Your task to perform on an android device: Open calendar and show me the second week of next month Image 0: 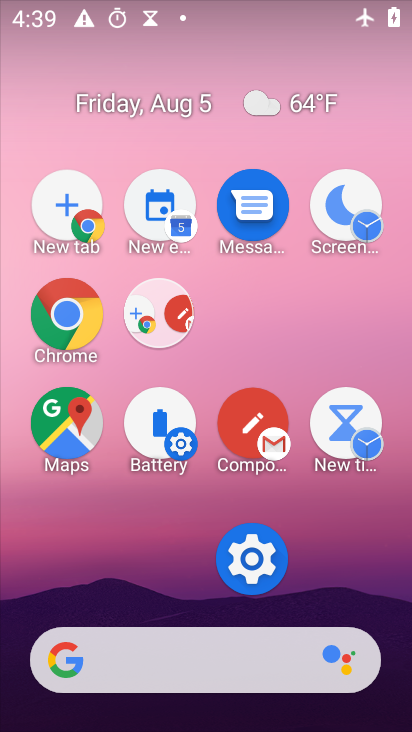
Step 0: drag from (309, 618) to (192, 227)
Your task to perform on an android device: Open calendar and show me the second week of next month Image 1: 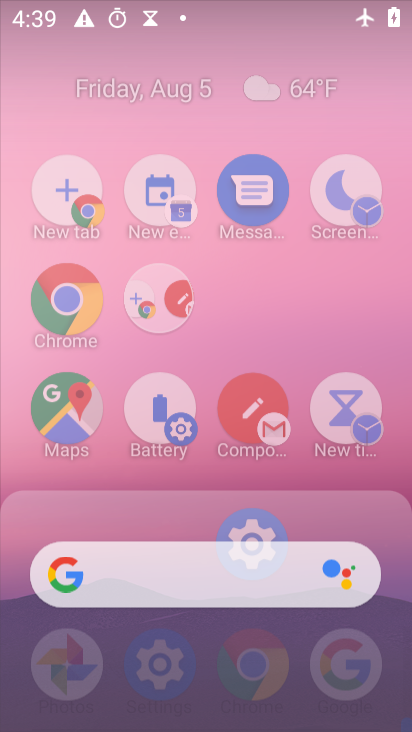
Step 1: drag from (347, 587) to (259, 259)
Your task to perform on an android device: Open calendar and show me the second week of next month Image 2: 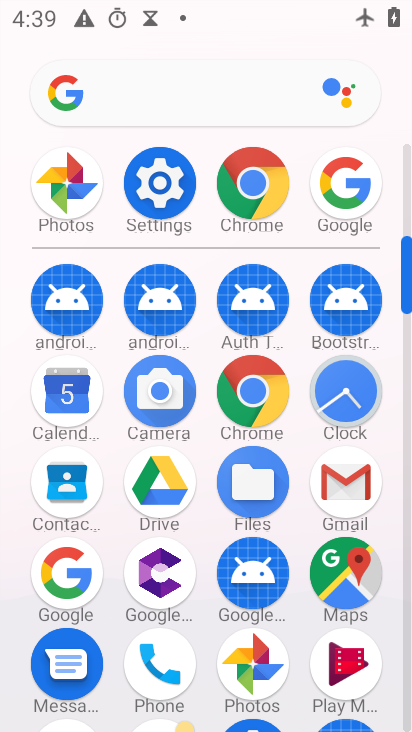
Step 2: drag from (301, 508) to (237, 186)
Your task to perform on an android device: Open calendar and show me the second week of next month Image 3: 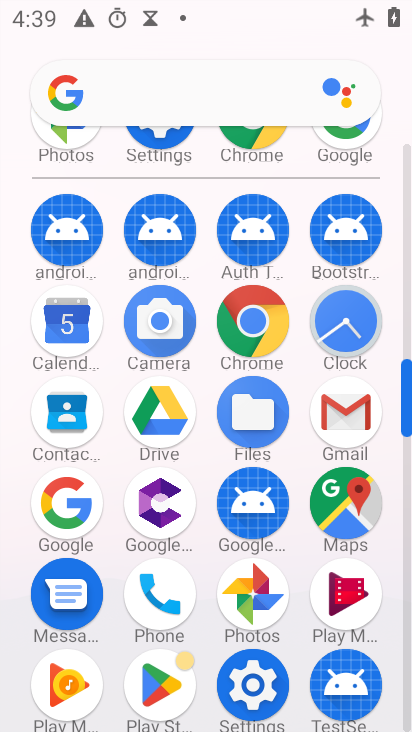
Step 3: drag from (283, 329) to (260, 514)
Your task to perform on an android device: Open calendar and show me the second week of next month Image 4: 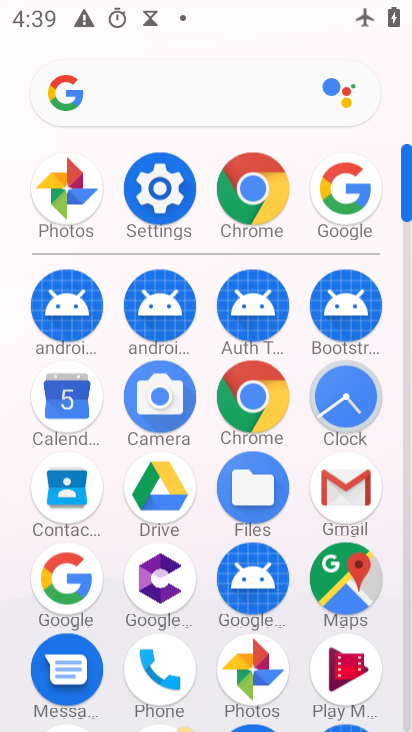
Step 4: click (207, 630)
Your task to perform on an android device: Open calendar and show me the second week of next month Image 5: 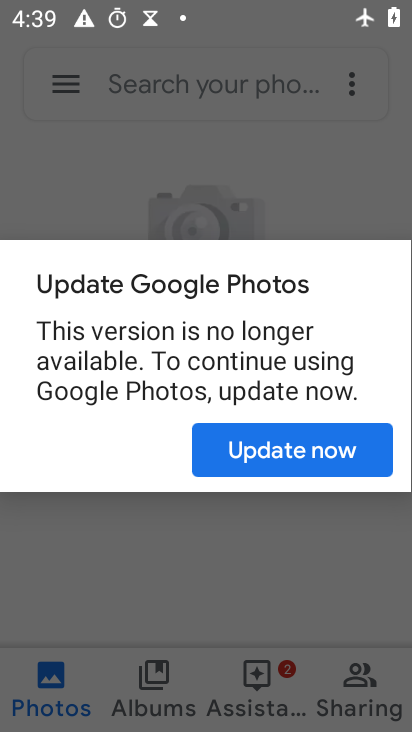
Step 5: press back button
Your task to perform on an android device: Open calendar and show me the second week of next month Image 6: 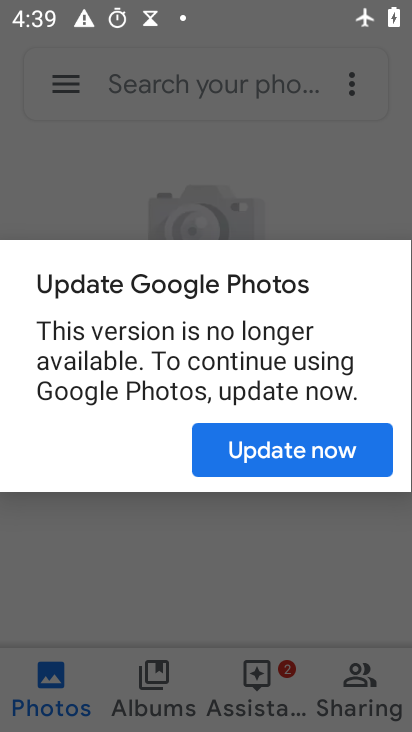
Step 6: press back button
Your task to perform on an android device: Open calendar and show me the second week of next month Image 7: 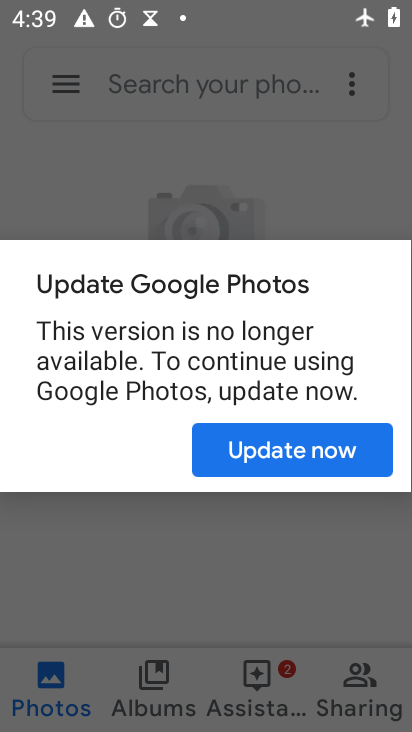
Step 7: press back button
Your task to perform on an android device: Open calendar and show me the second week of next month Image 8: 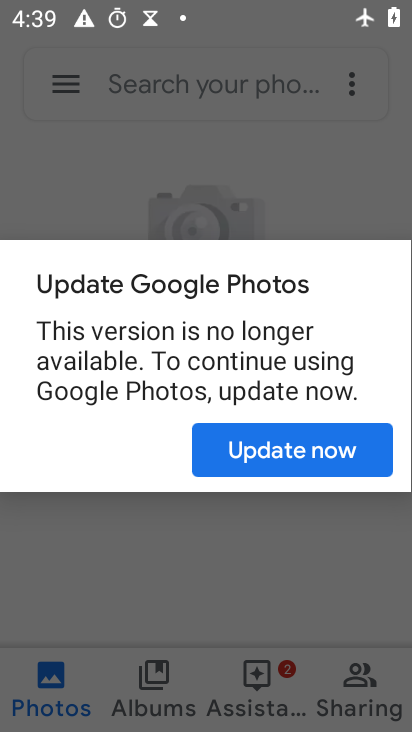
Step 8: press back button
Your task to perform on an android device: Open calendar and show me the second week of next month Image 9: 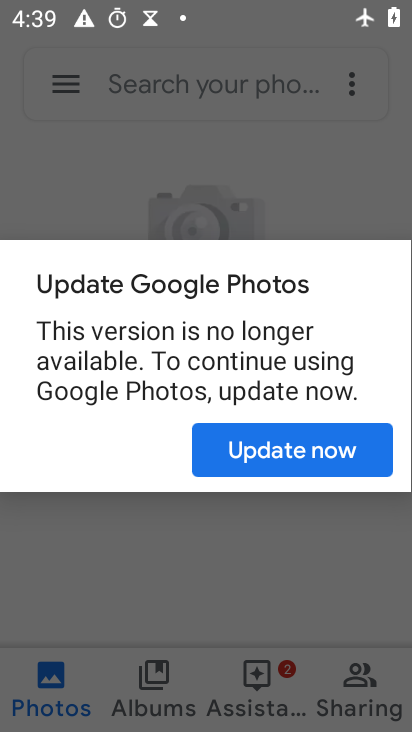
Step 9: press home button
Your task to perform on an android device: Open calendar and show me the second week of next month Image 10: 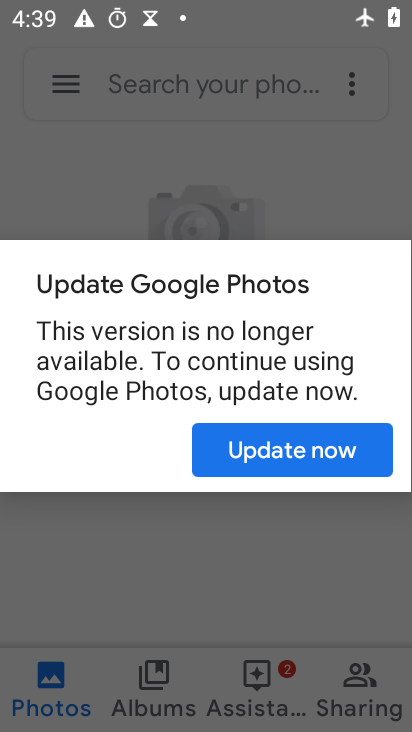
Step 10: press back button
Your task to perform on an android device: Open calendar and show me the second week of next month Image 11: 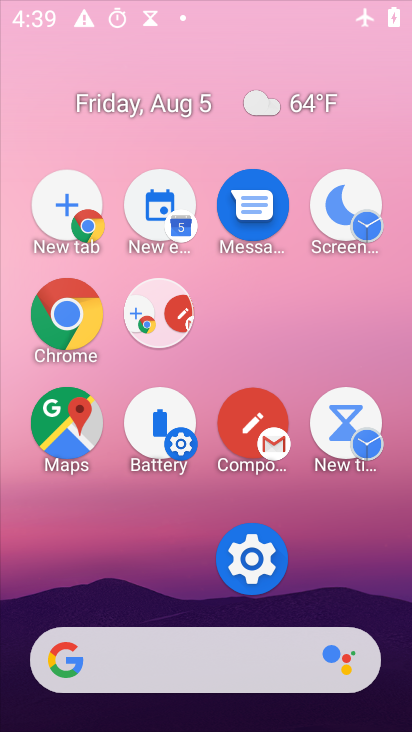
Step 11: press back button
Your task to perform on an android device: Open calendar and show me the second week of next month Image 12: 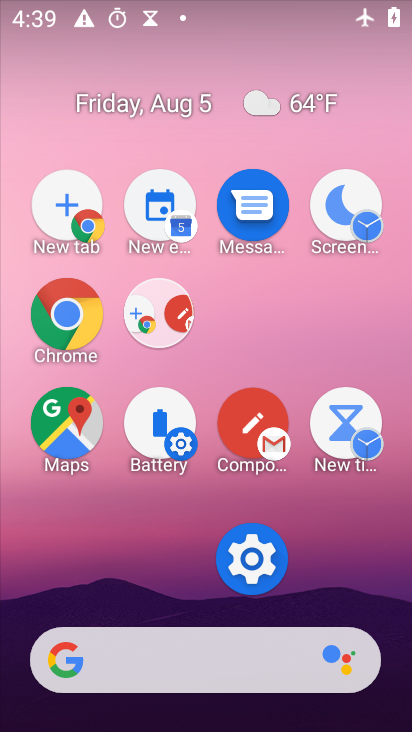
Step 12: press back button
Your task to perform on an android device: Open calendar and show me the second week of next month Image 13: 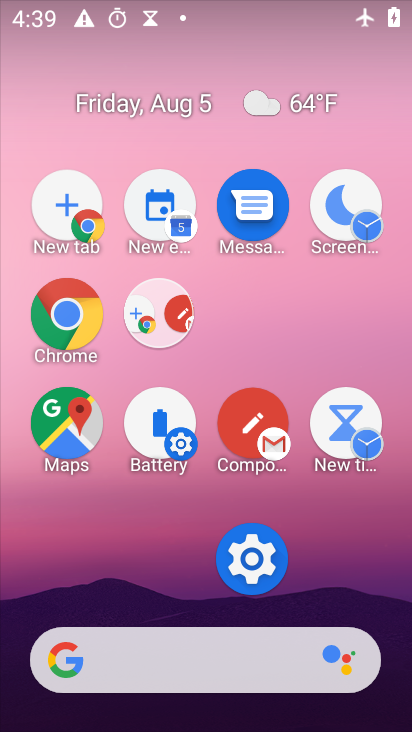
Step 13: drag from (224, 564) to (189, 123)
Your task to perform on an android device: Open calendar and show me the second week of next month Image 14: 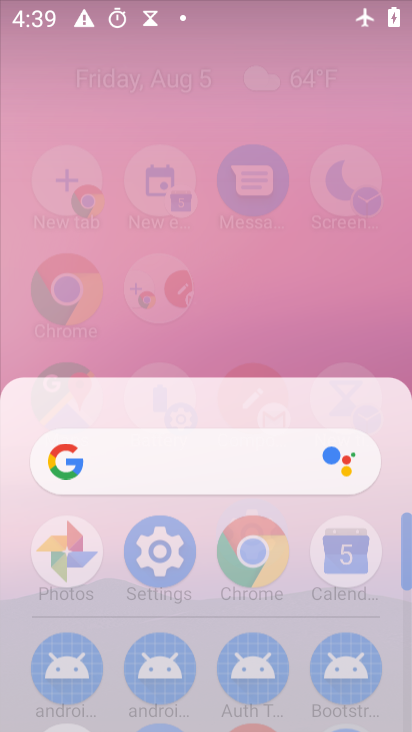
Step 14: drag from (229, 444) to (235, 128)
Your task to perform on an android device: Open calendar and show me the second week of next month Image 15: 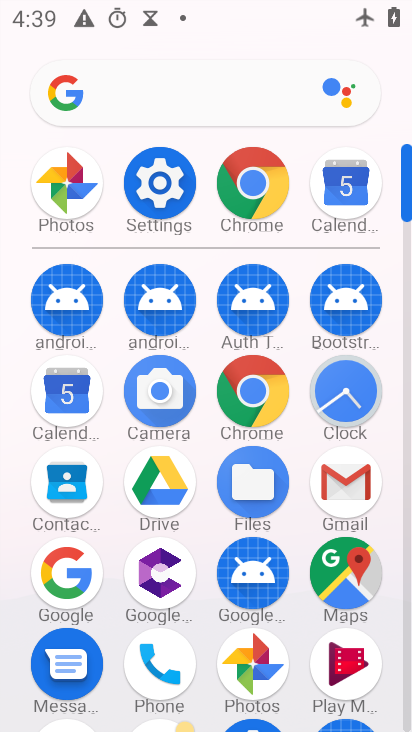
Step 15: click (347, 184)
Your task to perform on an android device: Open calendar and show me the second week of next month Image 16: 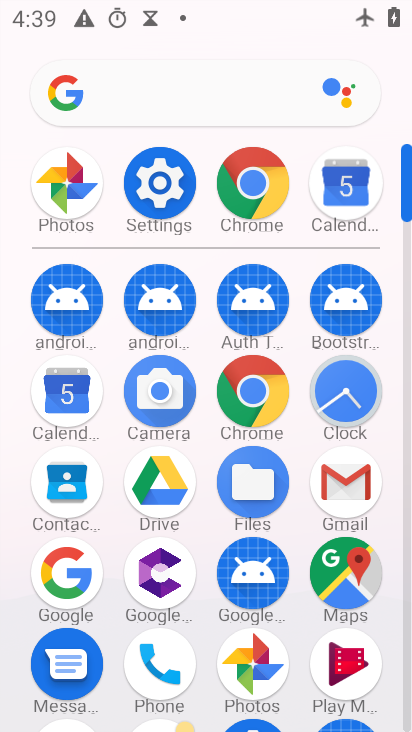
Step 16: click (347, 184)
Your task to perform on an android device: Open calendar and show me the second week of next month Image 17: 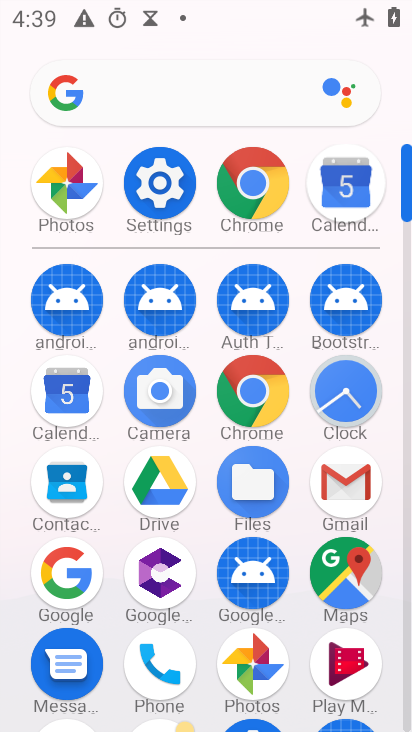
Step 17: click (347, 184)
Your task to perform on an android device: Open calendar and show me the second week of next month Image 18: 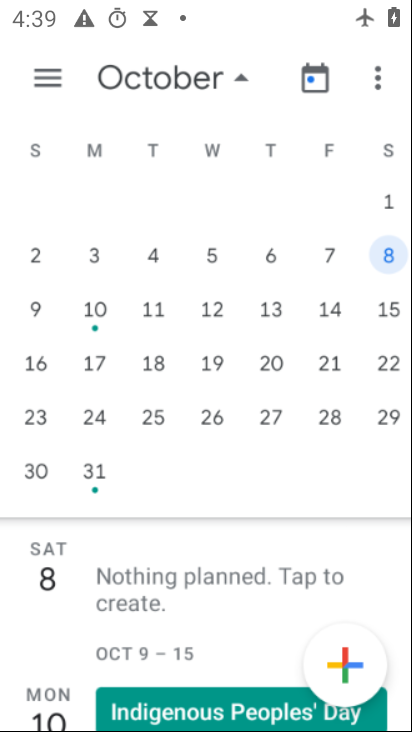
Step 18: click (352, 180)
Your task to perform on an android device: Open calendar and show me the second week of next month Image 19: 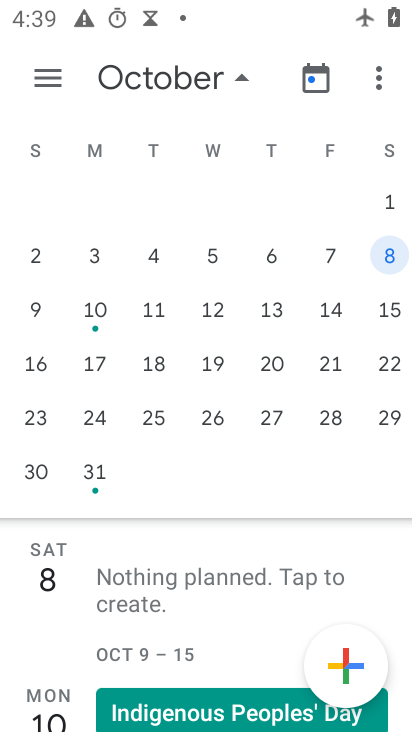
Step 19: drag from (365, 300) to (9, 310)
Your task to perform on an android device: Open calendar and show me the second week of next month Image 20: 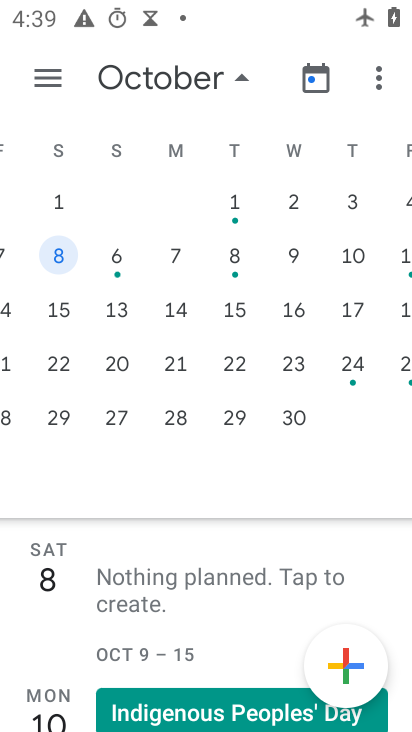
Step 20: drag from (90, 361) to (408, 379)
Your task to perform on an android device: Open calendar and show me the second week of next month Image 21: 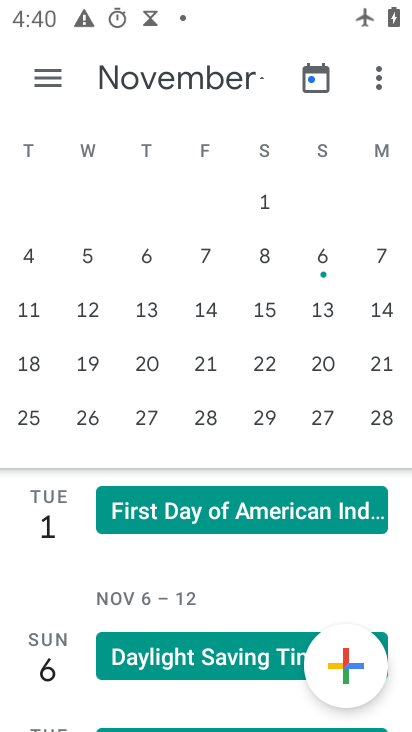
Step 21: drag from (111, 328) to (377, 331)
Your task to perform on an android device: Open calendar and show me the second week of next month Image 22: 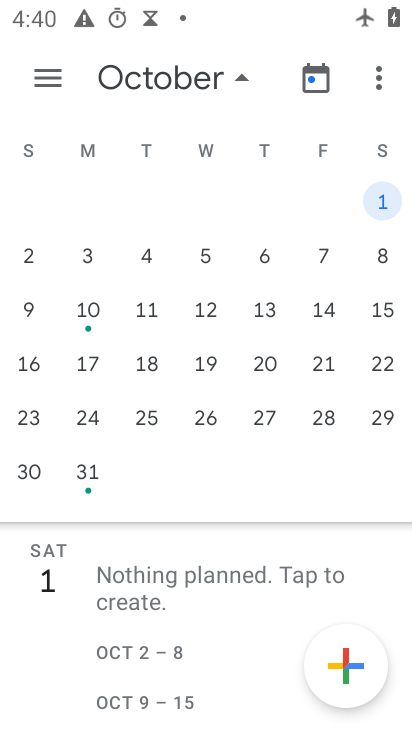
Step 22: drag from (72, 270) to (409, 287)
Your task to perform on an android device: Open calendar and show me the second week of next month Image 23: 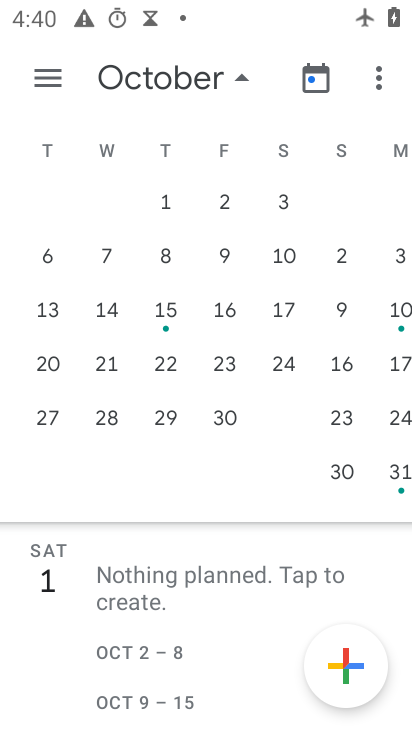
Step 23: drag from (116, 295) to (350, 337)
Your task to perform on an android device: Open calendar and show me the second week of next month Image 24: 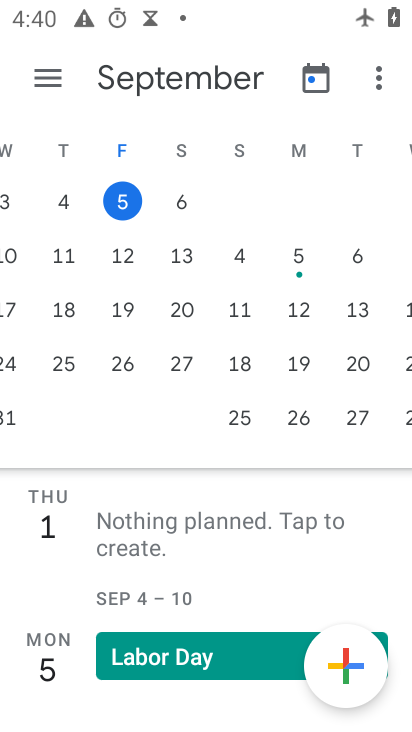
Step 24: drag from (104, 332) to (391, 365)
Your task to perform on an android device: Open calendar and show me the second week of next month Image 25: 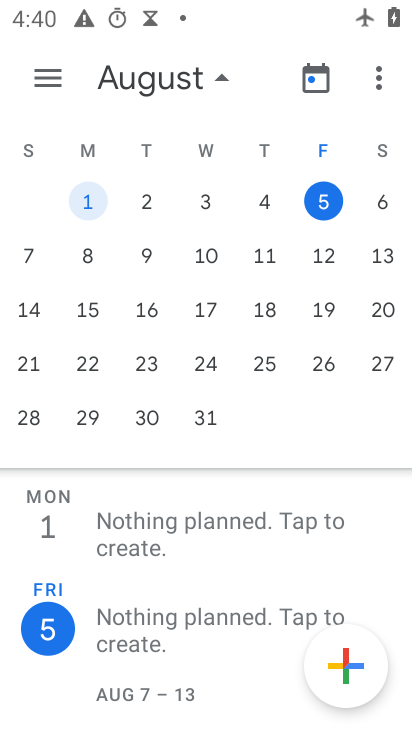
Step 25: drag from (329, 300) to (13, 333)
Your task to perform on an android device: Open calendar and show me the second week of next month Image 26: 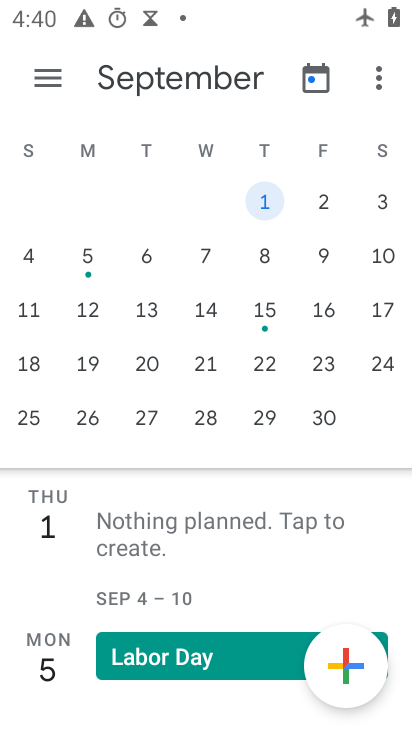
Step 26: drag from (365, 293) to (55, 353)
Your task to perform on an android device: Open calendar and show me the second week of next month Image 27: 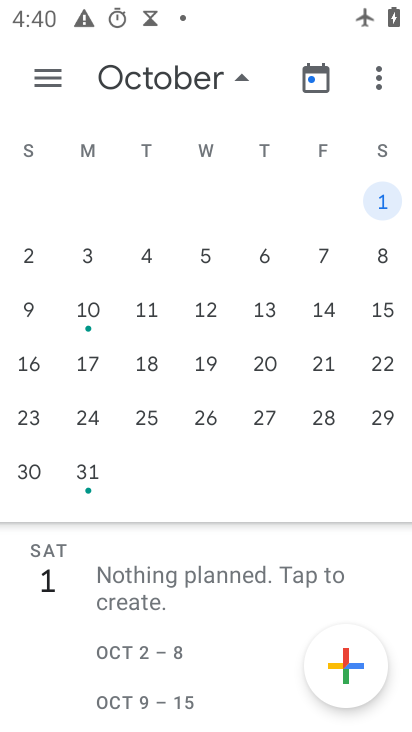
Step 27: drag from (20, 311) to (404, 330)
Your task to perform on an android device: Open calendar and show me the second week of next month Image 28: 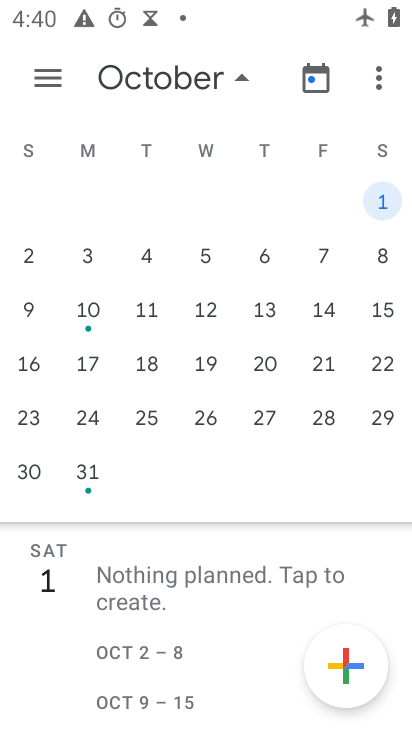
Step 28: drag from (35, 333) to (398, 309)
Your task to perform on an android device: Open calendar and show me the second week of next month Image 29: 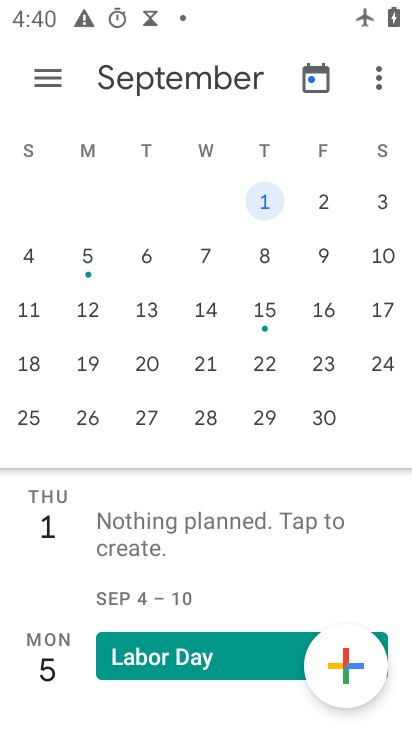
Step 29: drag from (64, 259) to (398, 247)
Your task to perform on an android device: Open calendar and show me the second week of next month Image 30: 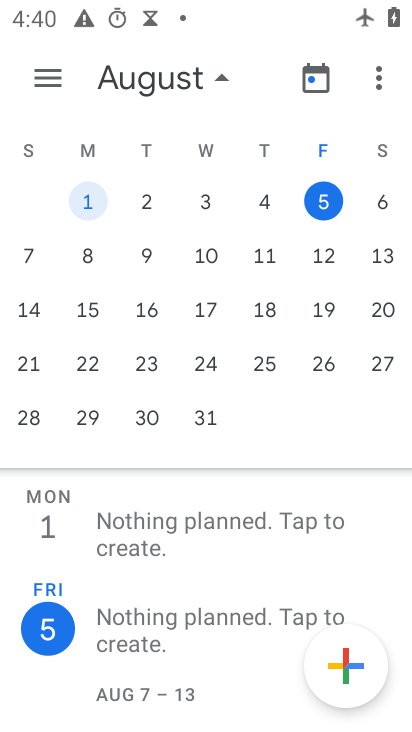
Step 30: click (261, 253)
Your task to perform on an android device: Open calendar and show me the second week of next month Image 31: 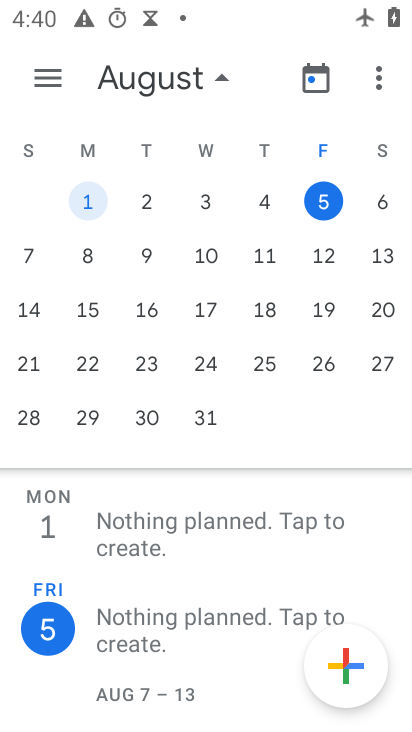
Step 31: drag from (362, 257) to (26, 244)
Your task to perform on an android device: Open calendar and show me the second week of next month Image 32: 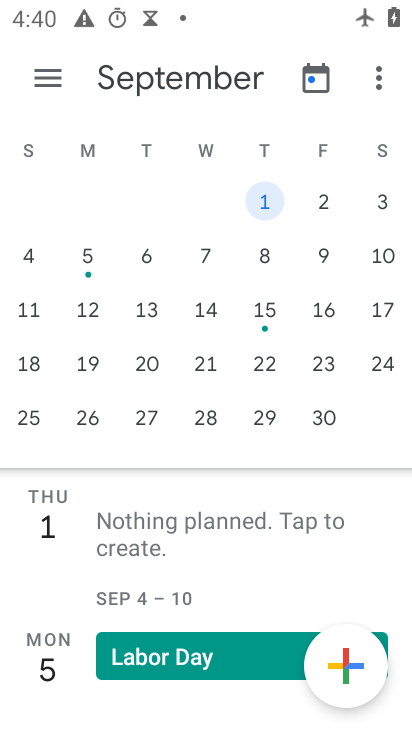
Step 32: click (268, 304)
Your task to perform on an android device: Open calendar and show me the second week of next month Image 33: 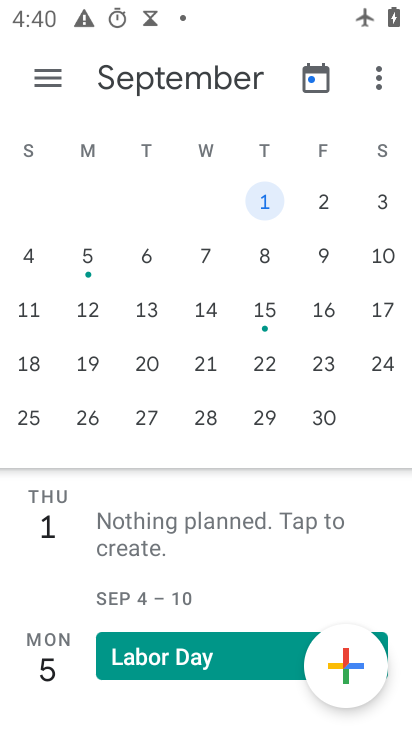
Step 33: click (270, 305)
Your task to perform on an android device: Open calendar and show me the second week of next month Image 34: 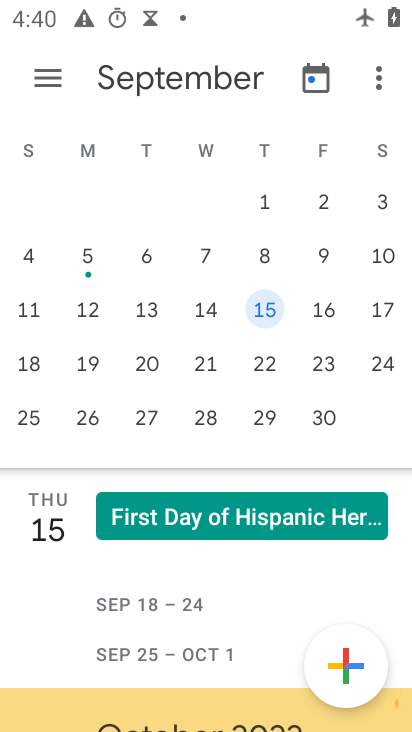
Step 34: click (252, 253)
Your task to perform on an android device: Open calendar and show me the second week of next month Image 35: 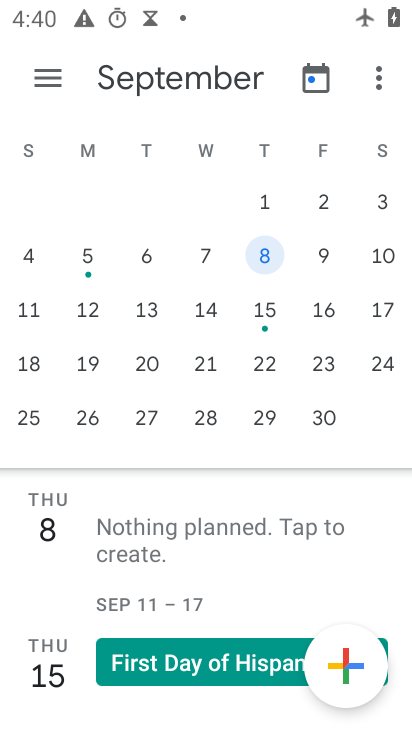
Step 35: click (259, 246)
Your task to perform on an android device: Open calendar and show me the second week of next month Image 36: 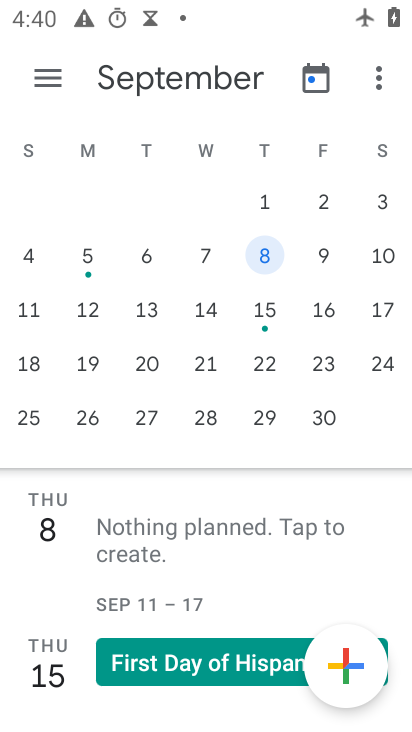
Step 36: task complete